Your task to perform on an android device: Search for Mexican restaurants on Maps Image 0: 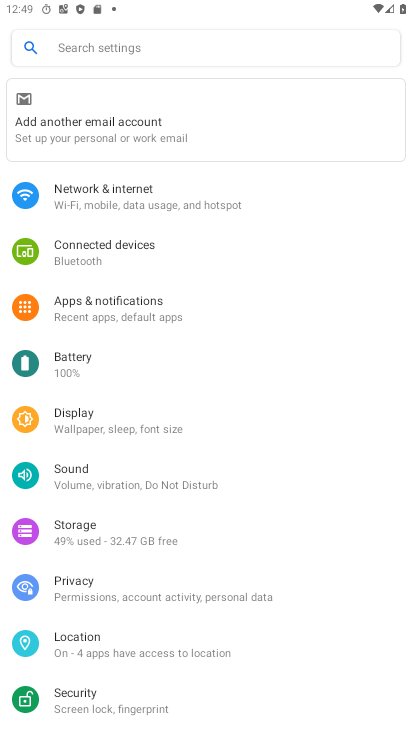
Step 0: press home button
Your task to perform on an android device: Search for Mexican restaurants on Maps Image 1: 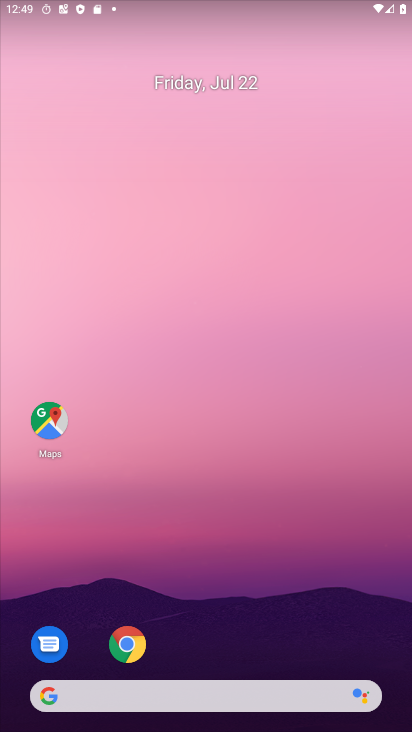
Step 1: drag from (188, 646) to (257, 56)
Your task to perform on an android device: Search for Mexican restaurants on Maps Image 2: 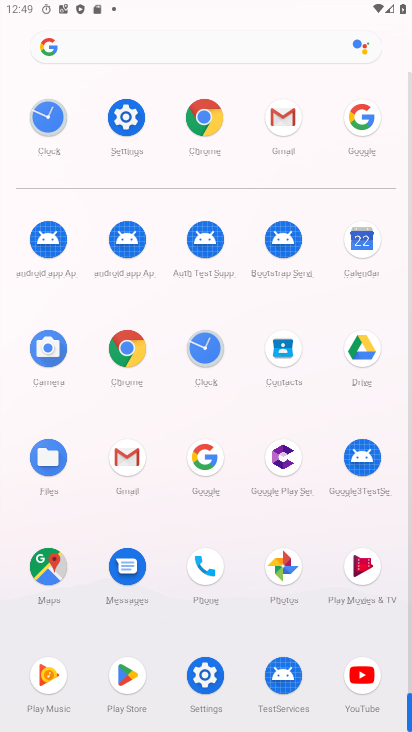
Step 2: drag from (224, 498) to (249, 126)
Your task to perform on an android device: Search for Mexican restaurants on Maps Image 3: 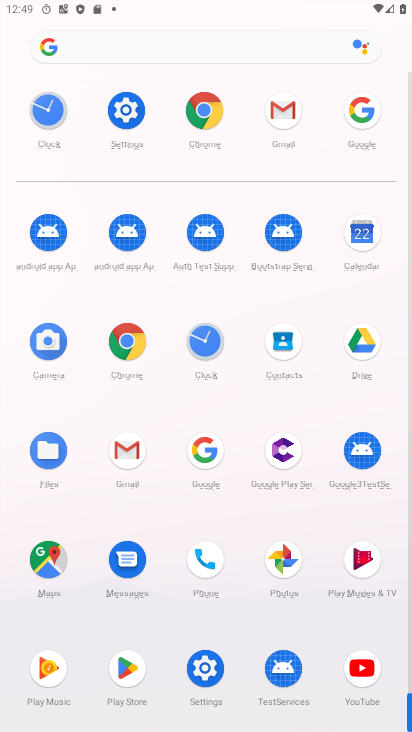
Step 3: click (56, 566)
Your task to perform on an android device: Search for Mexican restaurants on Maps Image 4: 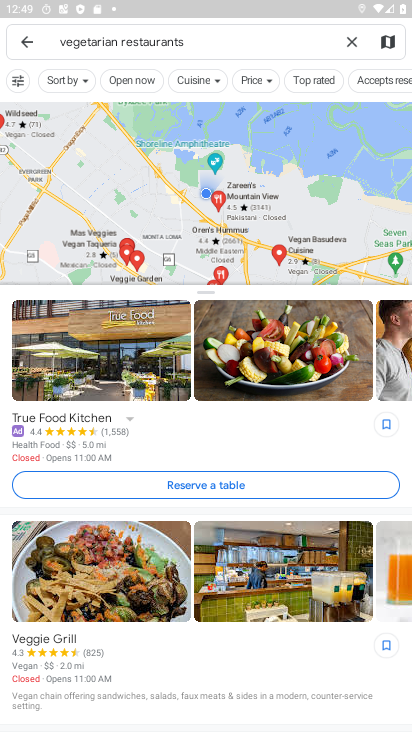
Step 4: click (353, 45)
Your task to perform on an android device: Search for Mexican restaurants on Maps Image 5: 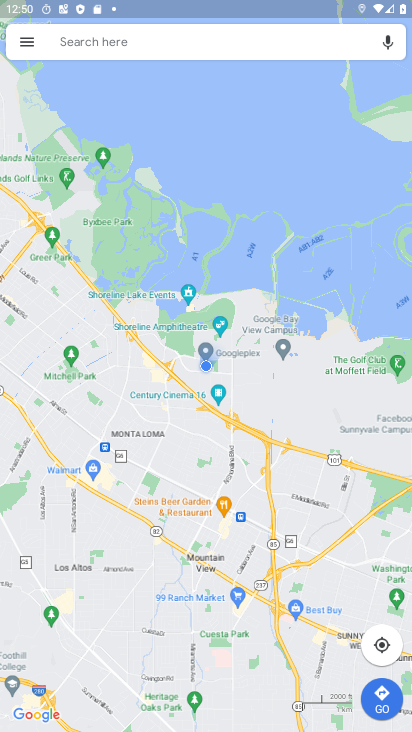
Step 5: click (254, 40)
Your task to perform on an android device: Search for Mexican restaurants on Maps Image 6: 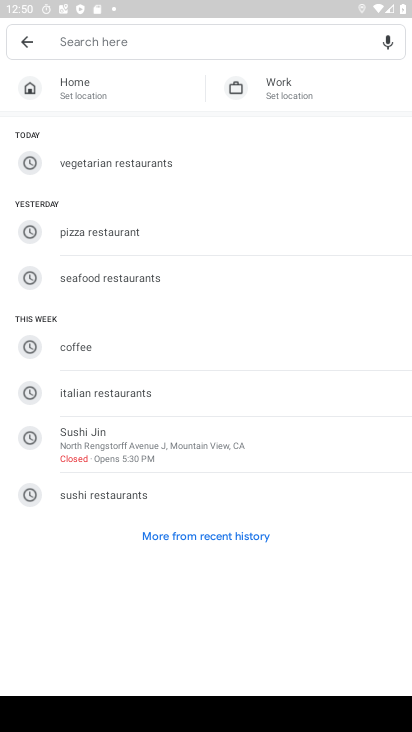
Step 6: type "mexican"
Your task to perform on an android device: Search for Mexican restaurants on Maps Image 7: 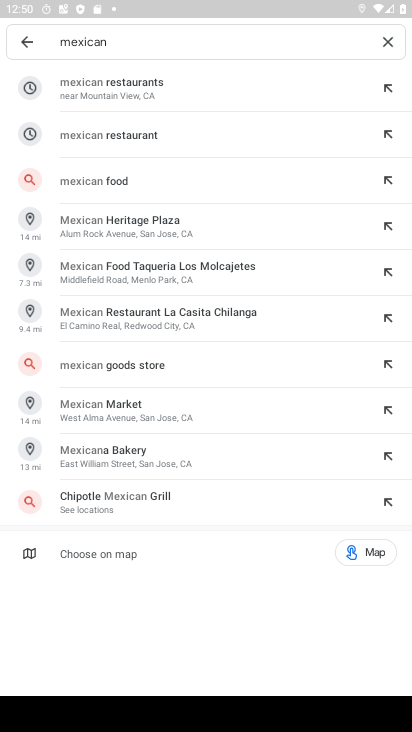
Step 7: click (143, 94)
Your task to perform on an android device: Search for Mexican restaurants on Maps Image 8: 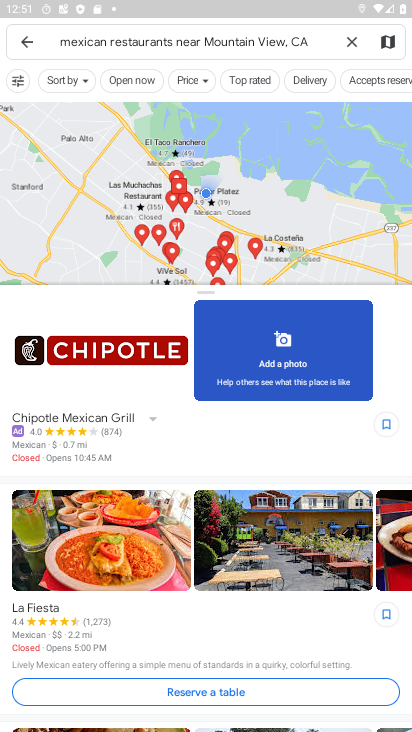
Step 8: task complete